Your task to perform on an android device: see tabs open on other devices in the chrome app Image 0: 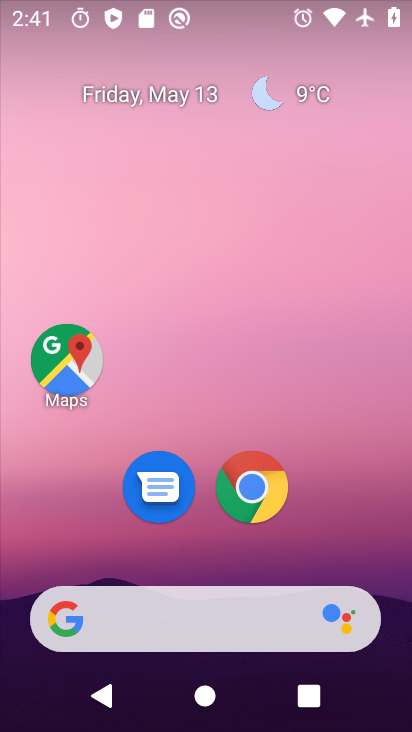
Step 0: click (255, 484)
Your task to perform on an android device: see tabs open on other devices in the chrome app Image 1: 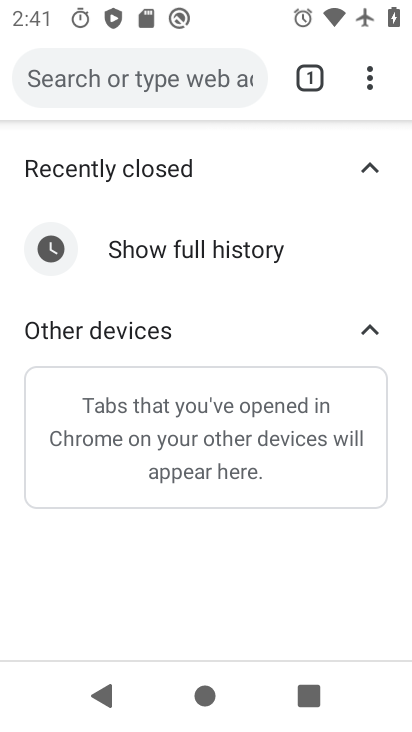
Step 1: click (355, 83)
Your task to perform on an android device: see tabs open on other devices in the chrome app Image 2: 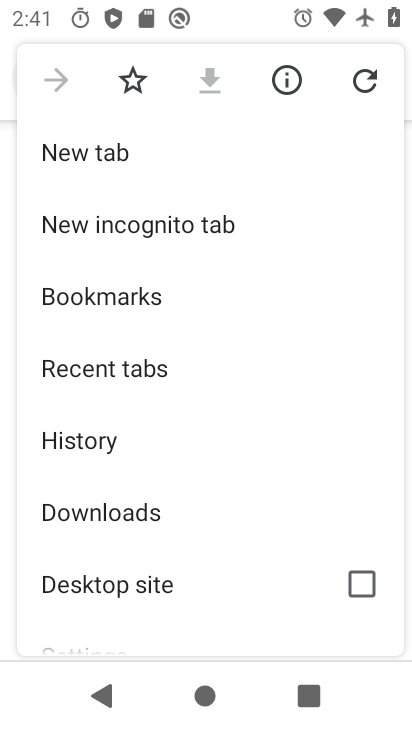
Step 2: drag from (283, 350) to (297, 606)
Your task to perform on an android device: see tabs open on other devices in the chrome app Image 3: 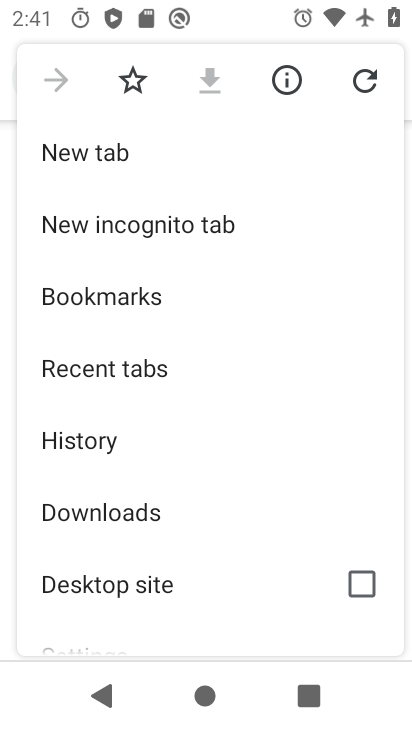
Step 3: press back button
Your task to perform on an android device: see tabs open on other devices in the chrome app Image 4: 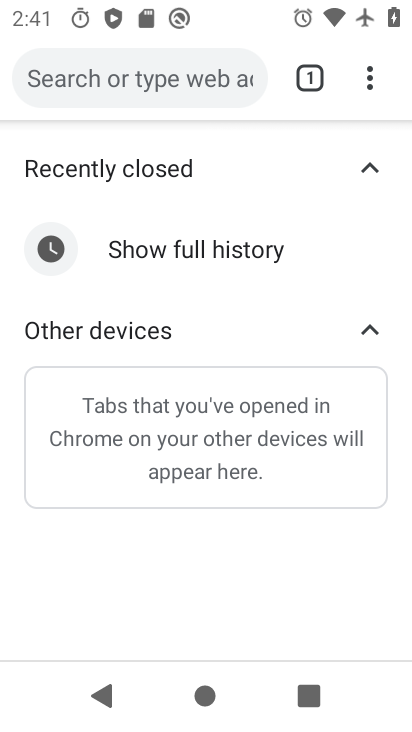
Step 4: click (321, 77)
Your task to perform on an android device: see tabs open on other devices in the chrome app Image 5: 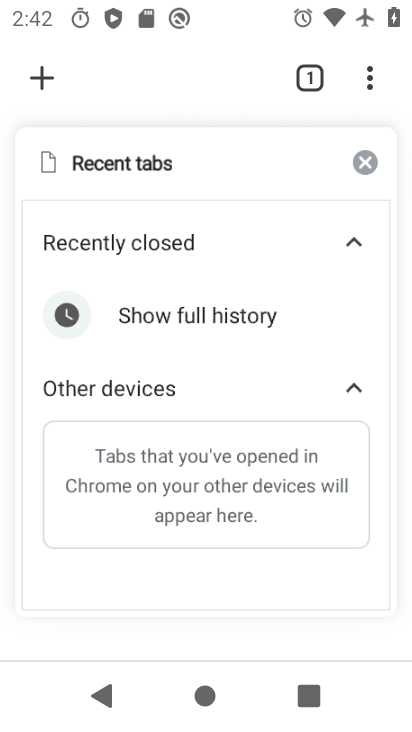
Step 5: task complete